Your task to perform on an android device: search for starred emails in the gmail app Image 0: 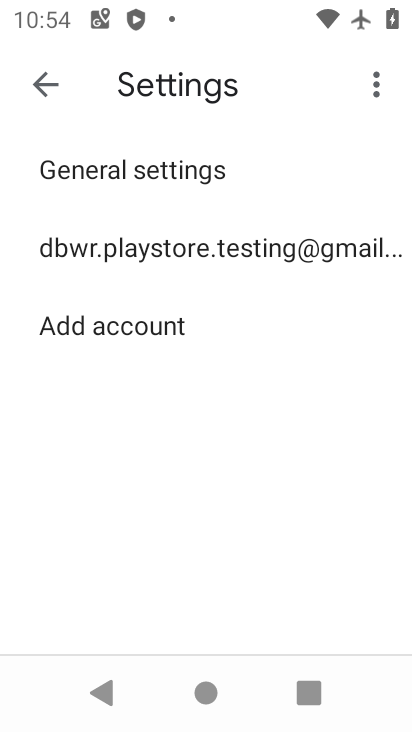
Step 0: press home button
Your task to perform on an android device: search for starred emails in the gmail app Image 1: 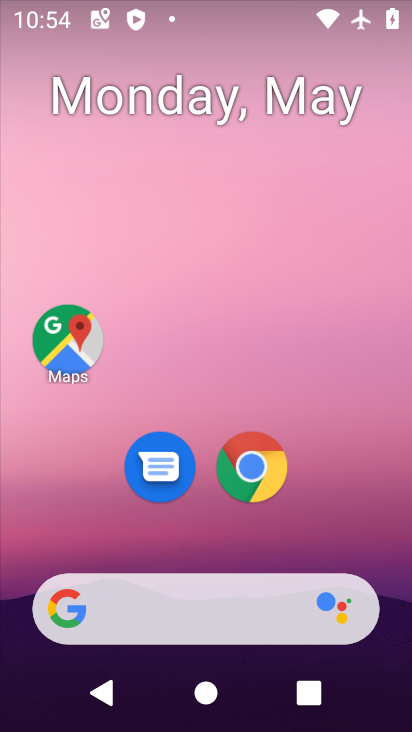
Step 1: drag from (214, 494) to (285, 21)
Your task to perform on an android device: search for starred emails in the gmail app Image 2: 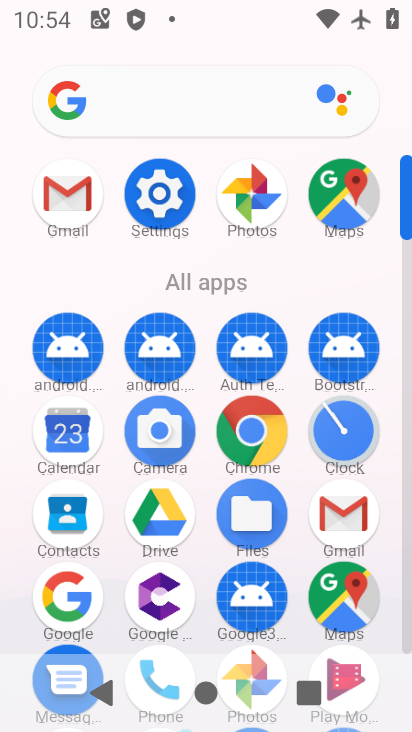
Step 2: click (332, 510)
Your task to perform on an android device: search for starred emails in the gmail app Image 3: 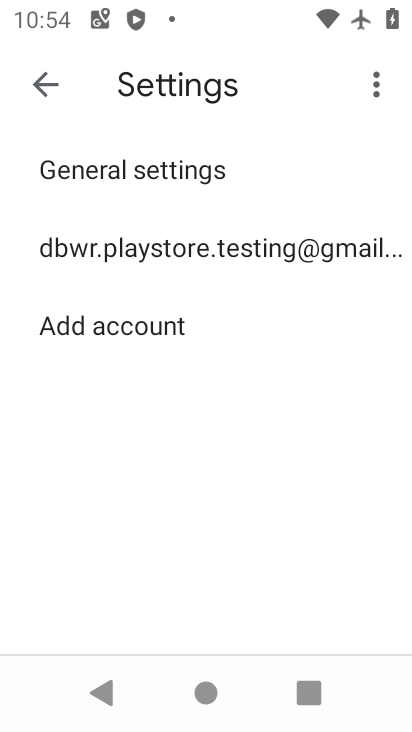
Step 3: click (50, 98)
Your task to perform on an android device: search for starred emails in the gmail app Image 4: 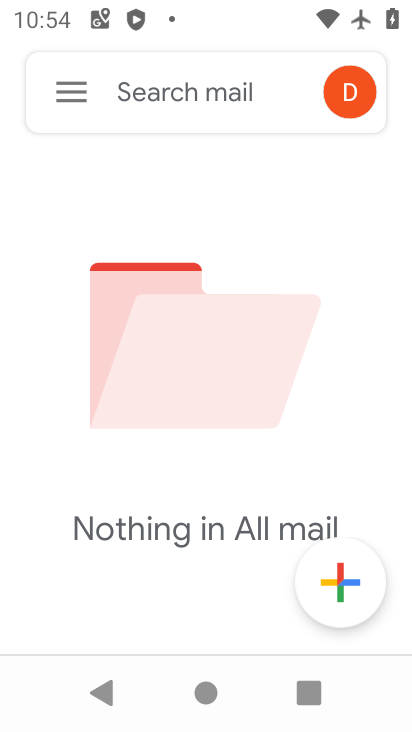
Step 4: click (67, 92)
Your task to perform on an android device: search for starred emails in the gmail app Image 5: 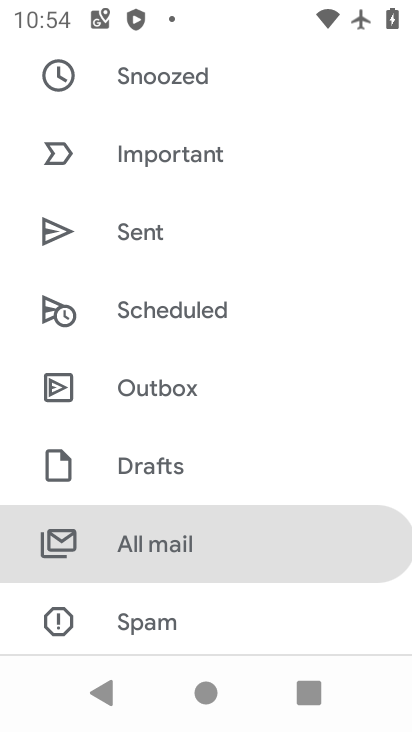
Step 5: drag from (187, 218) to (217, 586)
Your task to perform on an android device: search for starred emails in the gmail app Image 6: 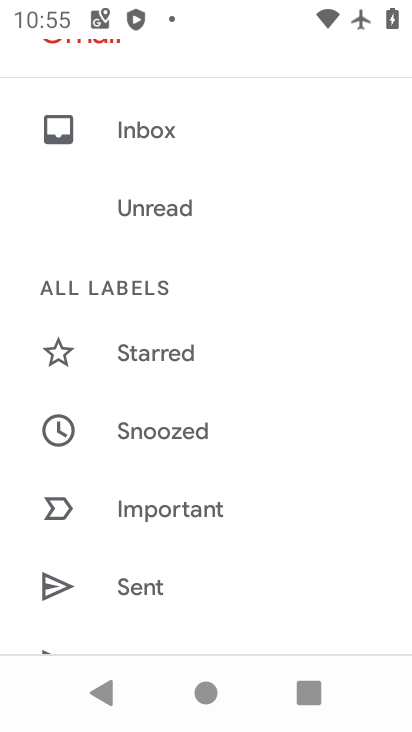
Step 6: click (181, 356)
Your task to perform on an android device: search for starred emails in the gmail app Image 7: 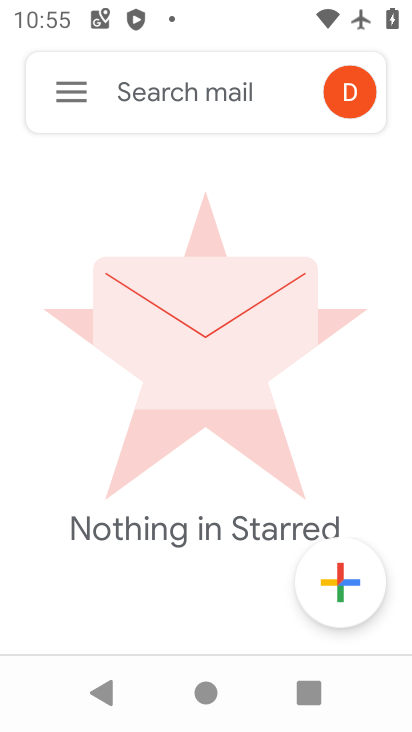
Step 7: task complete